Your task to perform on an android device: Go to Reddit.com Image 0: 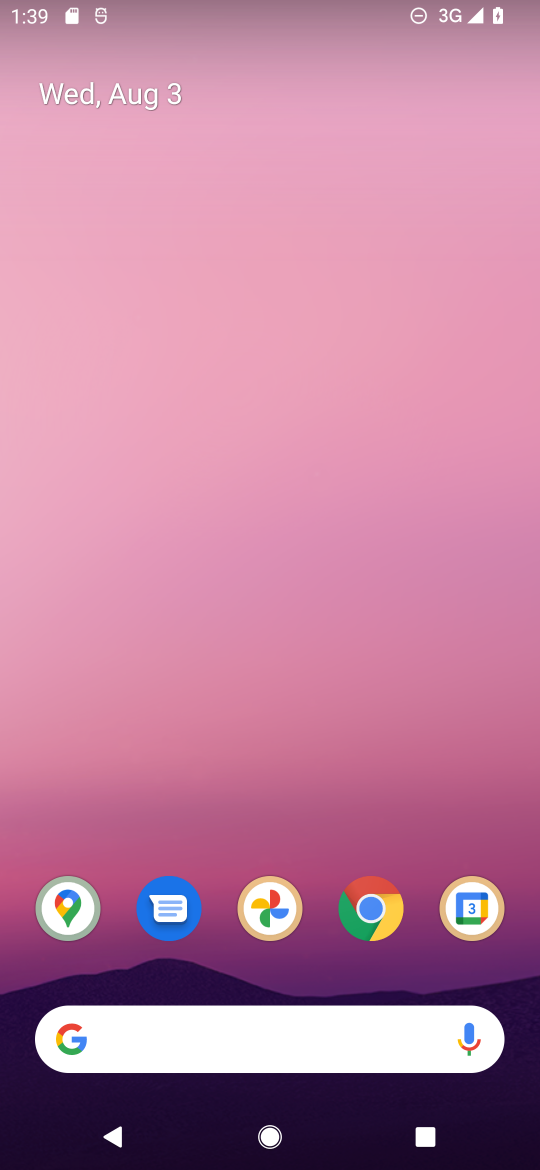
Step 0: click (367, 908)
Your task to perform on an android device: Go to Reddit.com Image 1: 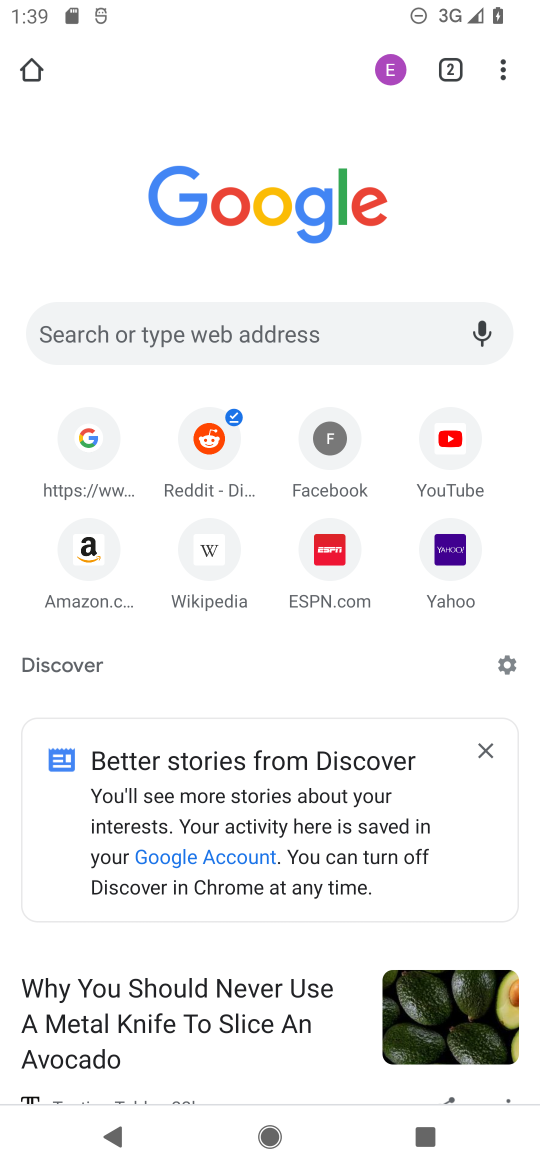
Step 1: click (220, 326)
Your task to perform on an android device: Go to Reddit.com Image 2: 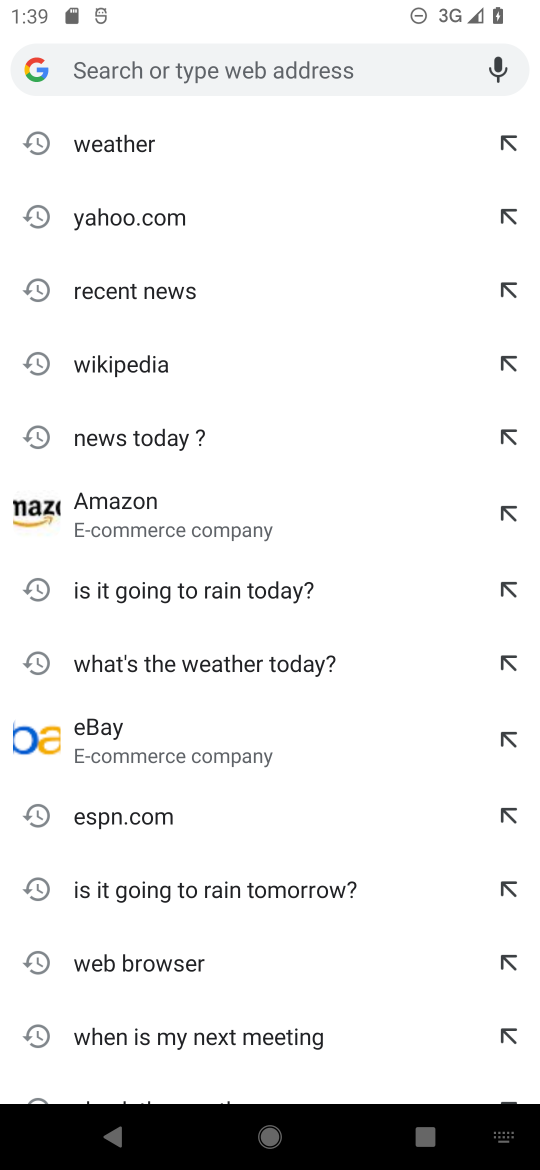
Step 2: type "www.reddit.com"
Your task to perform on an android device: Go to Reddit.com Image 3: 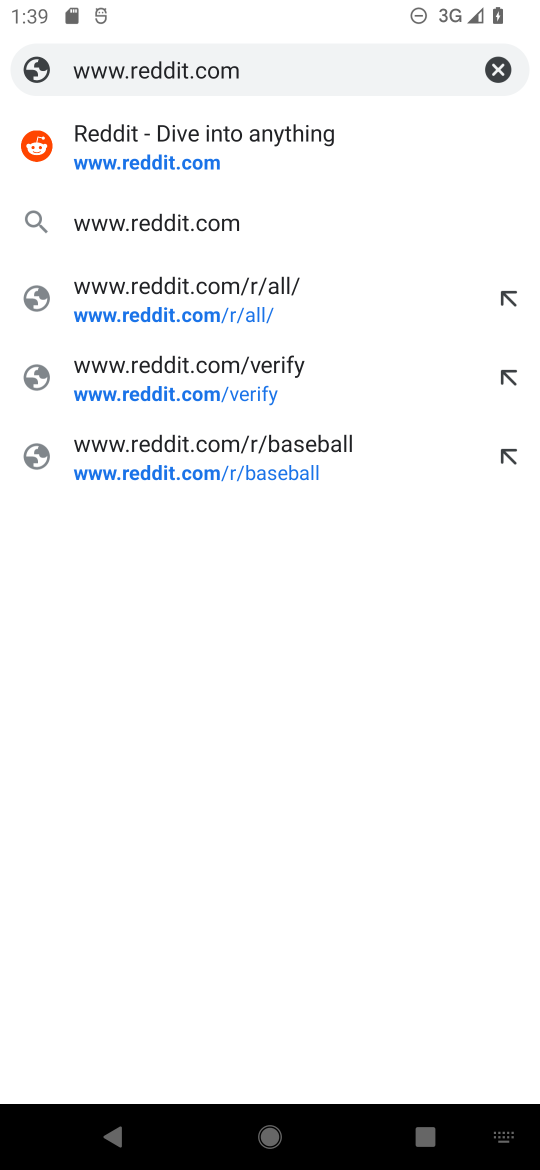
Step 3: click (168, 153)
Your task to perform on an android device: Go to Reddit.com Image 4: 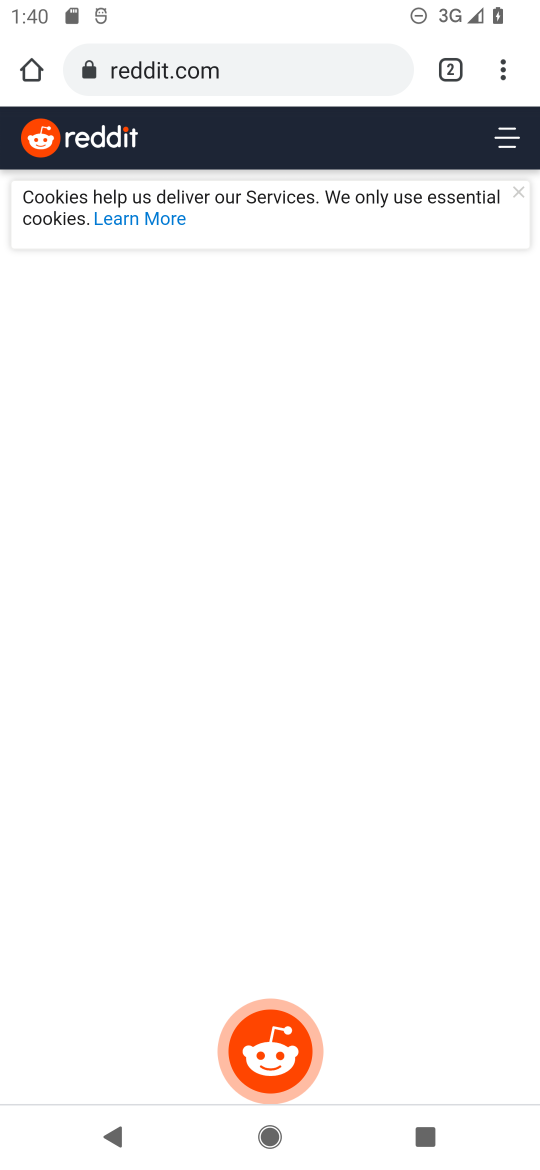
Step 4: task complete